Your task to perform on an android device: add a contact in the contacts app Image 0: 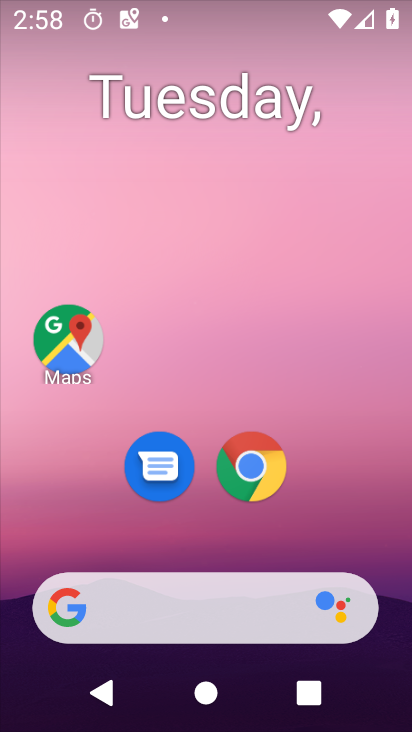
Step 0: drag from (373, 536) to (364, 183)
Your task to perform on an android device: add a contact in the contacts app Image 1: 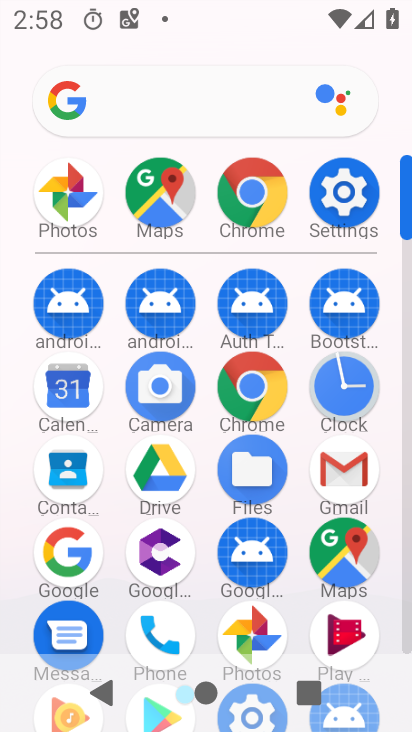
Step 1: click (54, 465)
Your task to perform on an android device: add a contact in the contacts app Image 2: 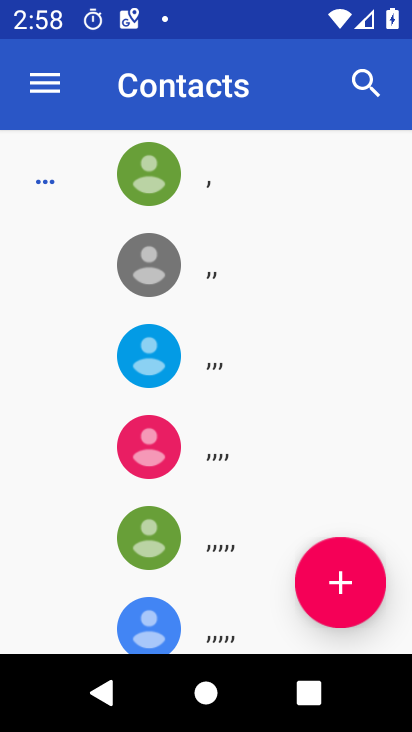
Step 2: click (345, 586)
Your task to perform on an android device: add a contact in the contacts app Image 3: 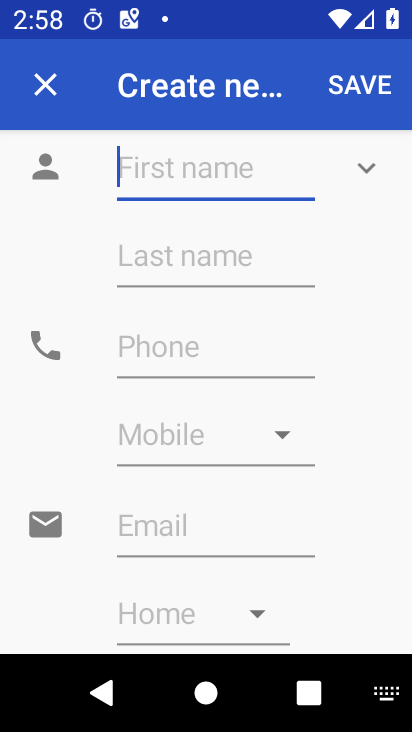
Step 3: type "fav"
Your task to perform on an android device: add a contact in the contacts app Image 4: 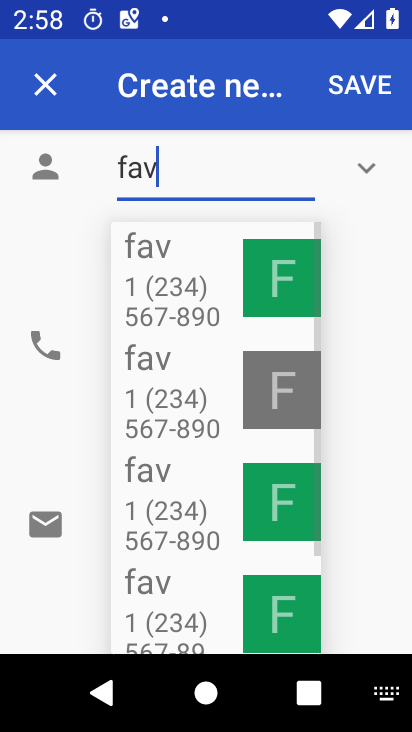
Step 4: click (367, 359)
Your task to perform on an android device: add a contact in the contacts app Image 5: 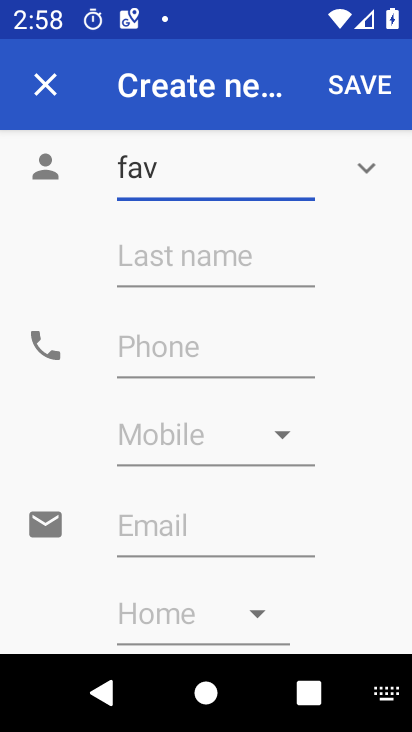
Step 5: click (192, 351)
Your task to perform on an android device: add a contact in the contacts app Image 6: 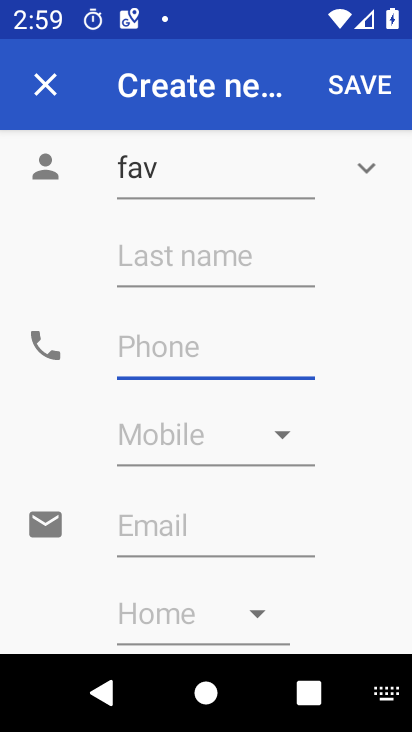
Step 6: type "1234567890"
Your task to perform on an android device: add a contact in the contacts app Image 7: 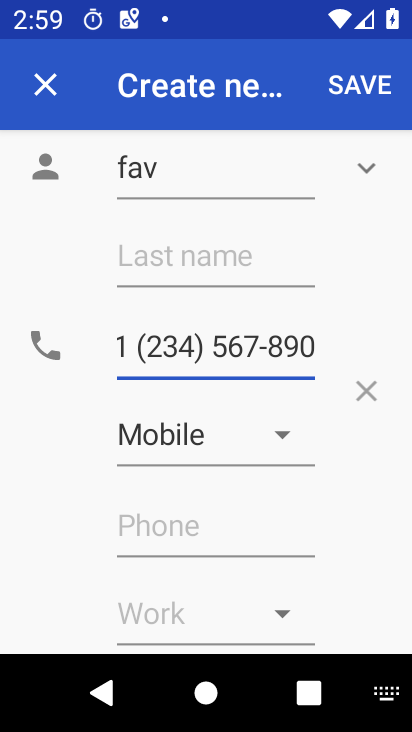
Step 7: click (359, 87)
Your task to perform on an android device: add a contact in the contacts app Image 8: 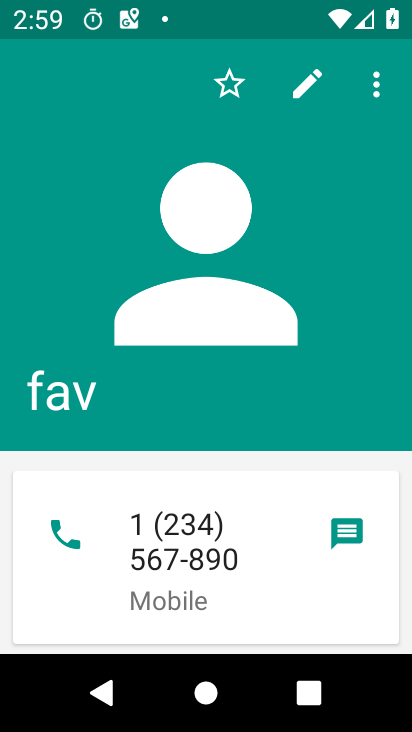
Step 8: task complete